Your task to perform on an android device: Open wifi settings Image 0: 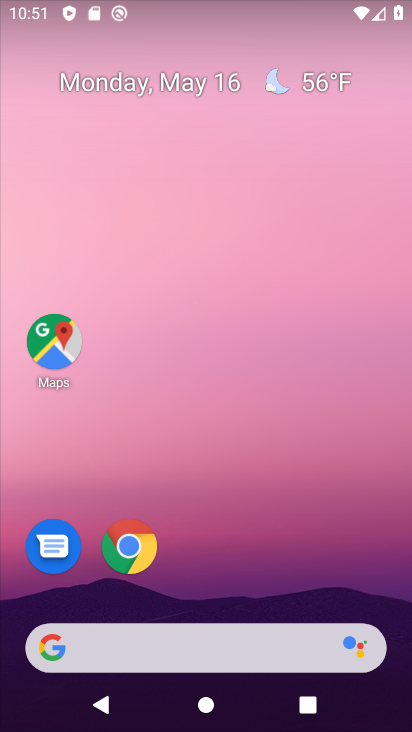
Step 0: drag from (360, 534) to (409, 97)
Your task to perform on an android device: Open wifi settings Image 1: 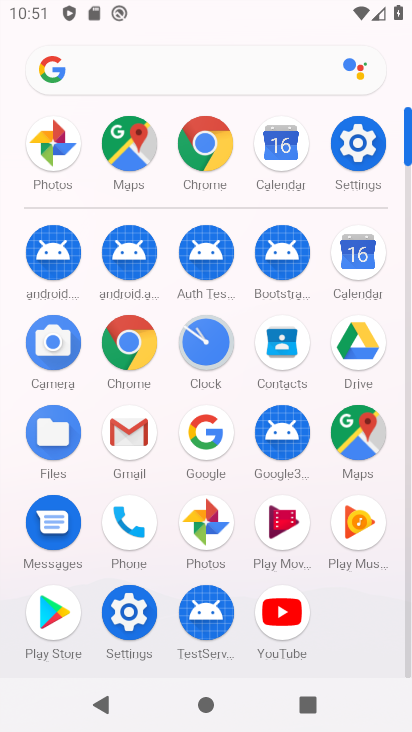
Step 1: click (362, 171)
Your task to perform on an android device: Open wifi settings Image 2: 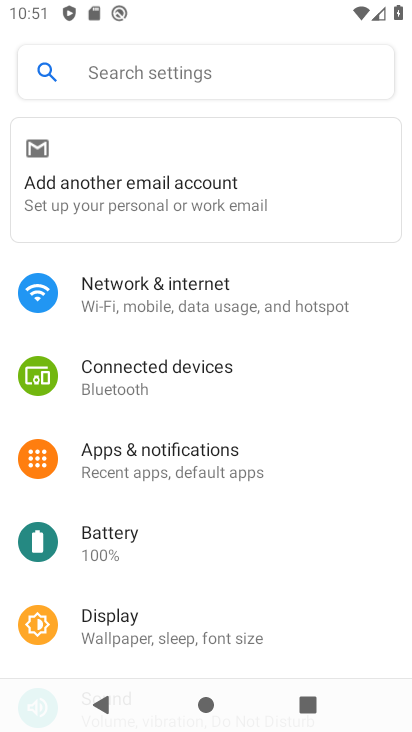
Step 2: click (166, 281)
Your task to perform on an android device: Open wifi settings Image 3: 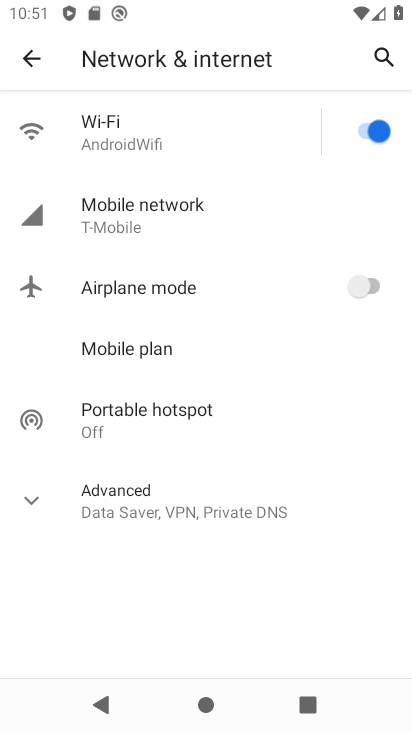
Step 3: click (161, 153)
Your task to perform on an android device: Open wifi settings Image 4: 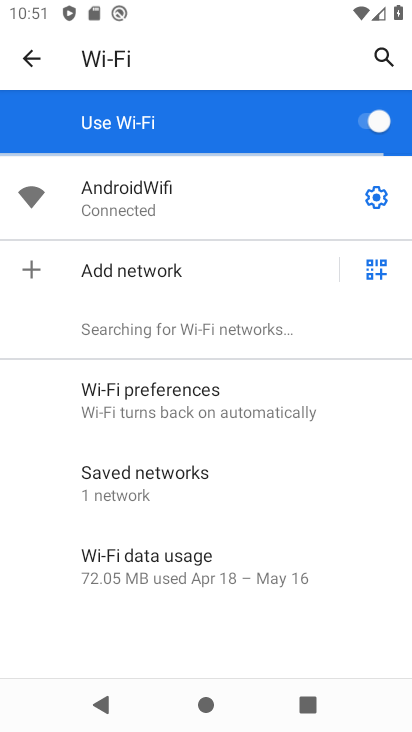
Step 4: task complete